Your task to perform on an android device: change timer sound Image 0: 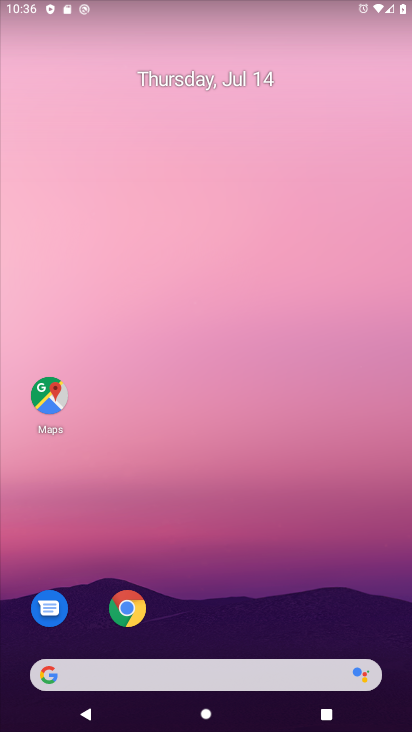
Step 0: drag from (209, 622) to (203, 101)
Your task to perform on an android device: change timer sound Image 1: 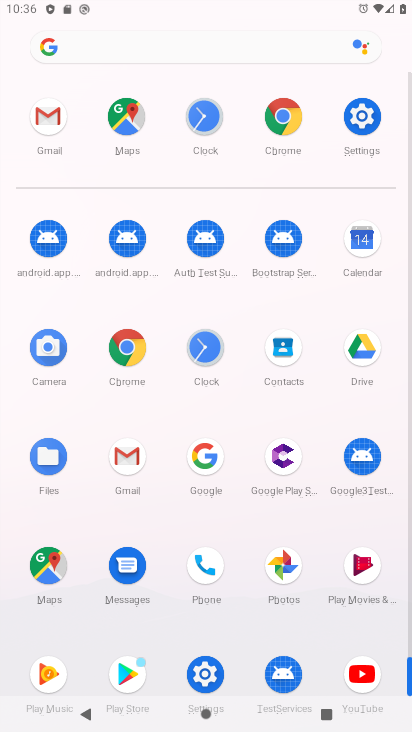
Step 1: click (203, 359)
Your task to perform on an android device: change timer sound Image 2: 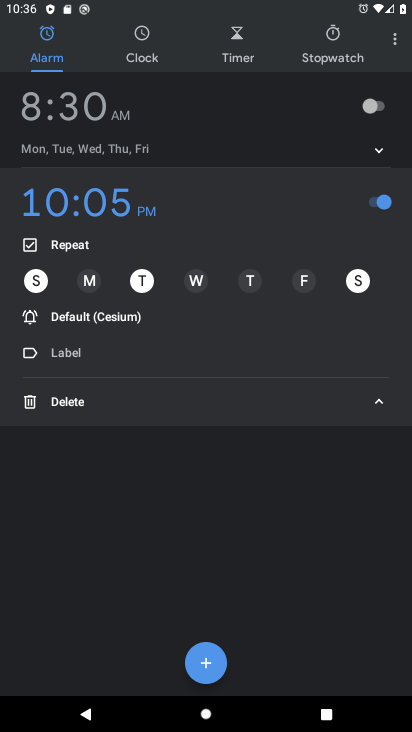
Step 2: click (395, 46)
Your task to perform on an android device: change timer sound Image 3: 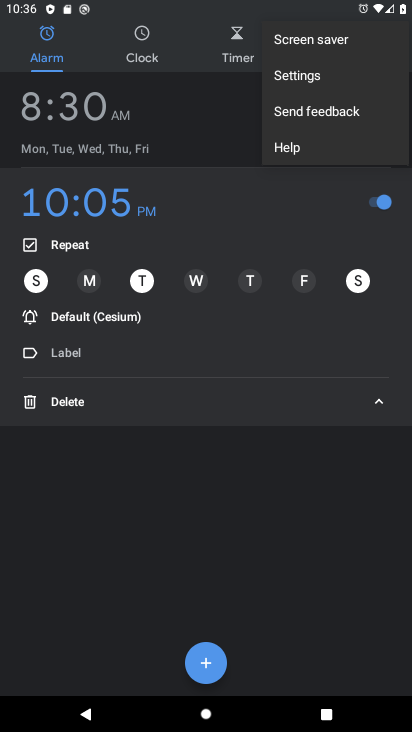
Step 3: click (297, 79)
Your task to perform on an android device: change timer sound Image 4: 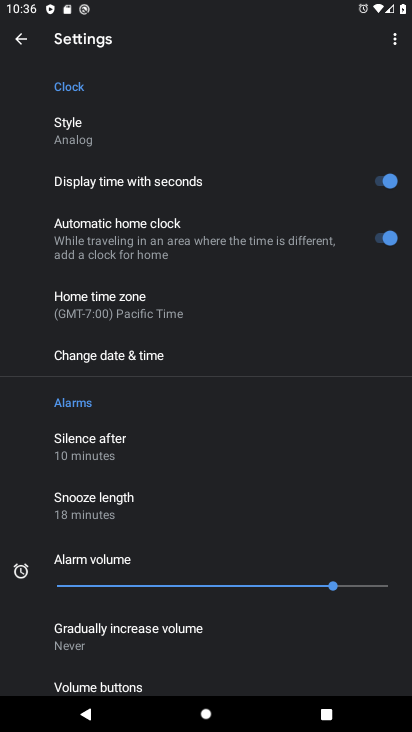
Step 4: drag from (159, 569) to (171, 274)
Your task to perform on an android device: change timer sound Image 5: 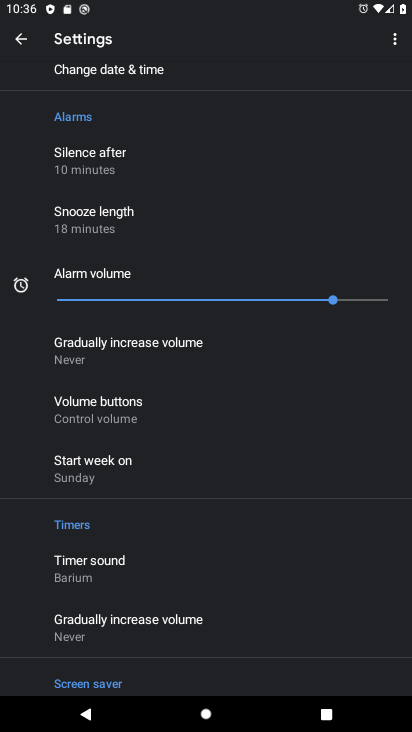
Step 5: click (123, 580)
Your task to perform on an android device: change timer sound Image 6: 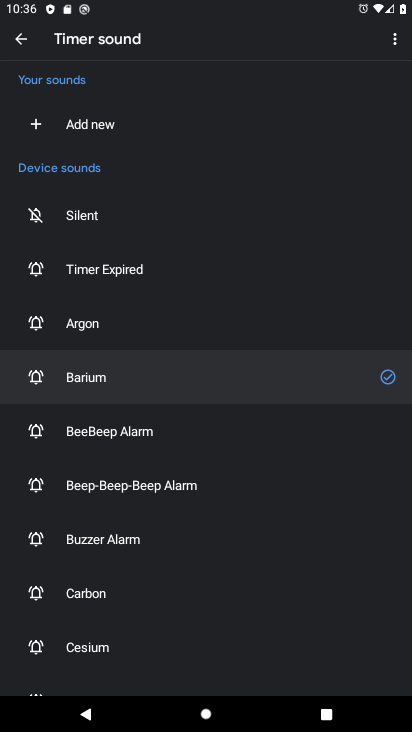
Step 6: click (116, 445)
Your task to perform on an android device: change timer sound Image 7: 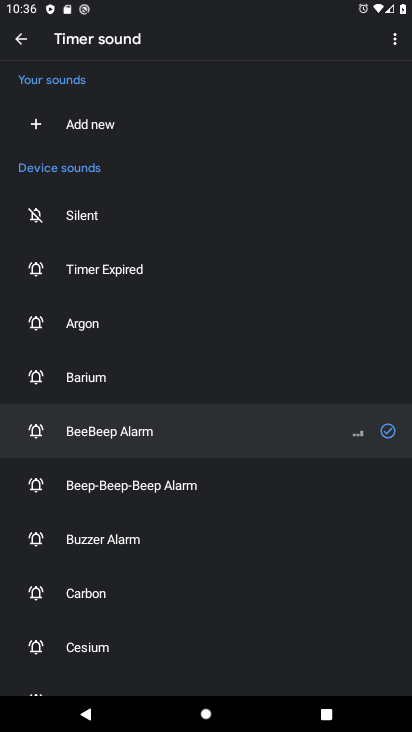
Step 7: task complete